Your task to perform on an android device: Find coffee shops on Maps Image 0: 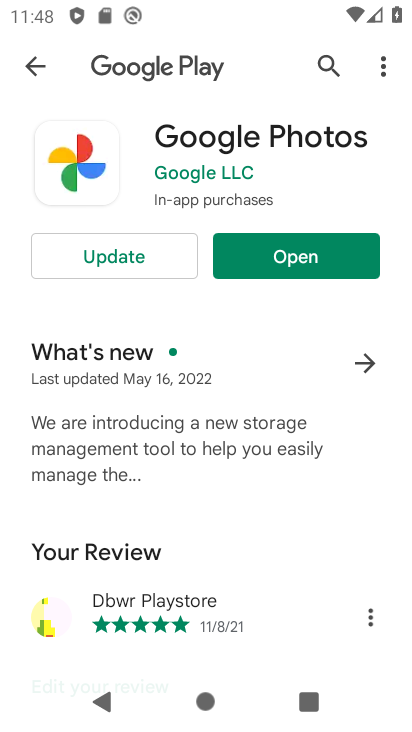
Step 0: press home button
Your task to perform on an android device: Find coffee shops on Maps Image 1: 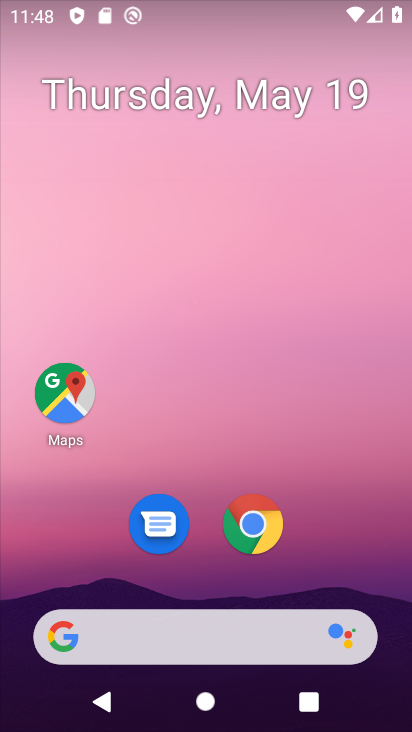
Step 1: click (66, 402)
Your task to perform on an android device: Find coffee shops on Maps Image 2: 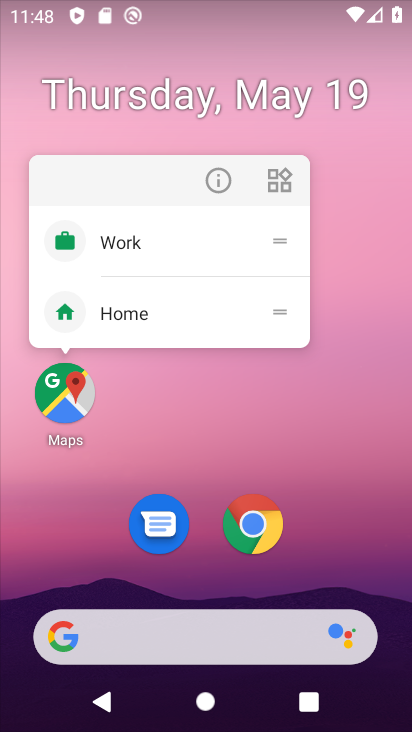
Step 2: click (66, 402)
Your task to perform on an android device: Find coffee shops on Maps Image 3: 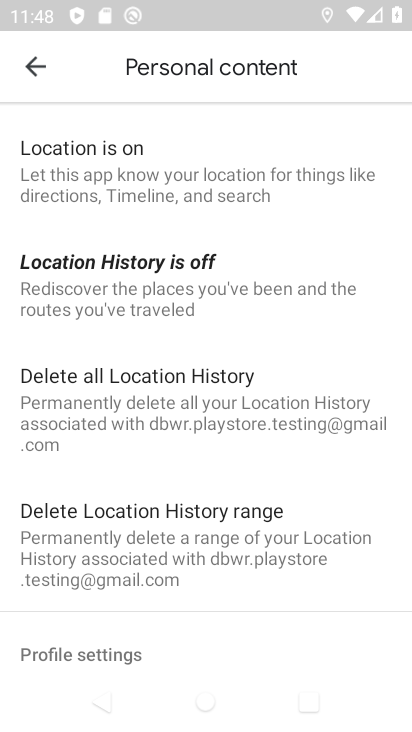
Step 3: click (36, 61)
Your task to perform on an android device: Find coffee shops on Maps Image 4: 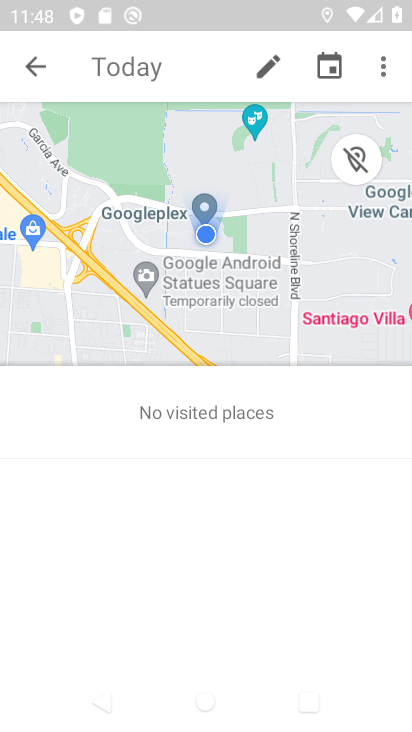
Step 4: click (36, 61)
Your task to perform on an android device: Find coffee shops on Maps Image 5: 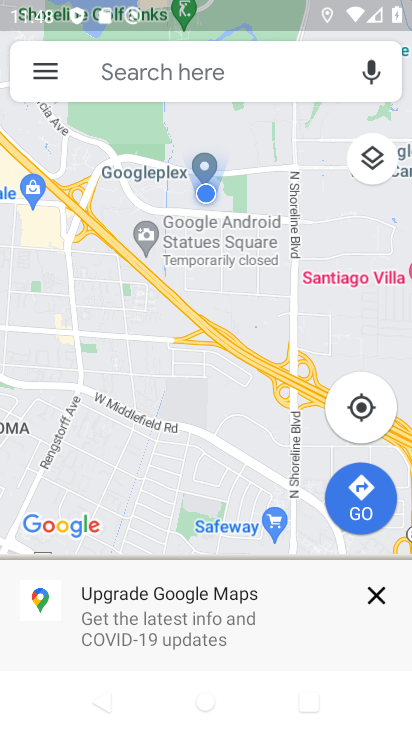
Step 5: click (135, 66)
Your task to perform on an android device: Find coffee shops on Maps Image 6: 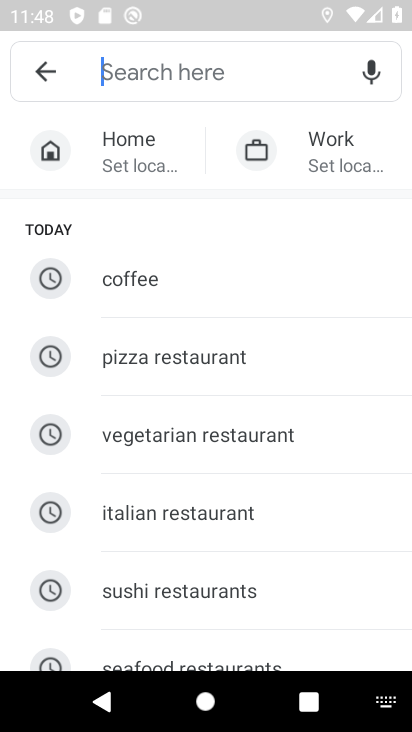
Step 6: click (130, 270)
Your task to perform on an android device: Find coffee shops on Maps Image 7: 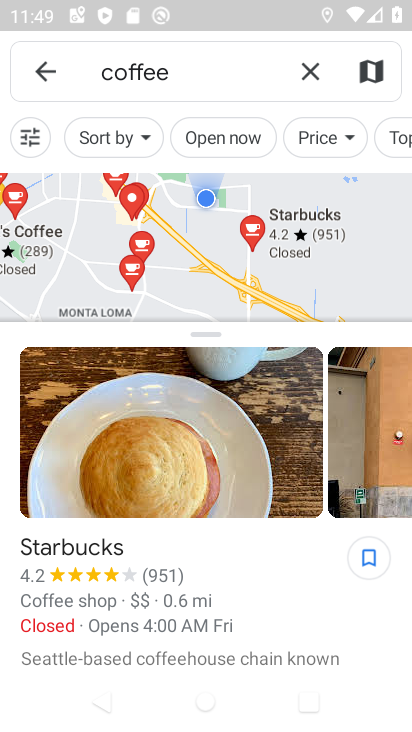
Step 7: task complete